Your task to perform on an android device: check out phone information Image 0: 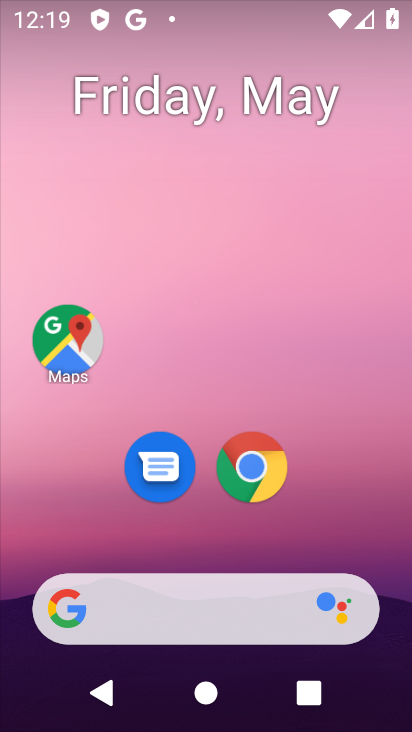
Step 0: drag from (345, 506) to (269, 61)
Your task to perform on an android device: check out phone information Image 1: 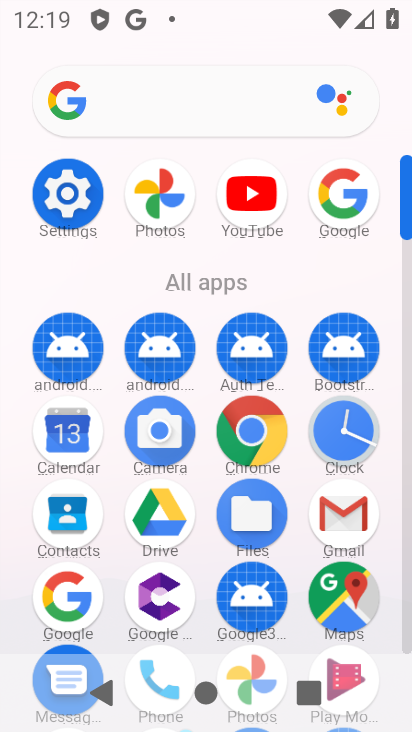
Step 1: click (65, 191)
Your task to perform on an android device: check out phone information Image 2: 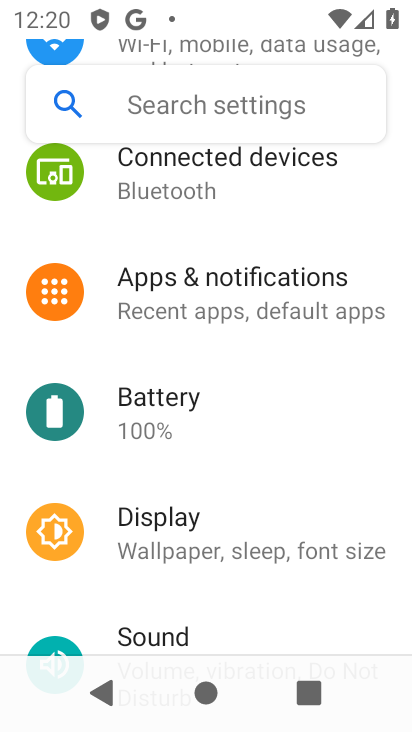
Step 2: drag from (243, 494) to (248, 372)
Your task to perform on an android device: check out phone information Image 3: 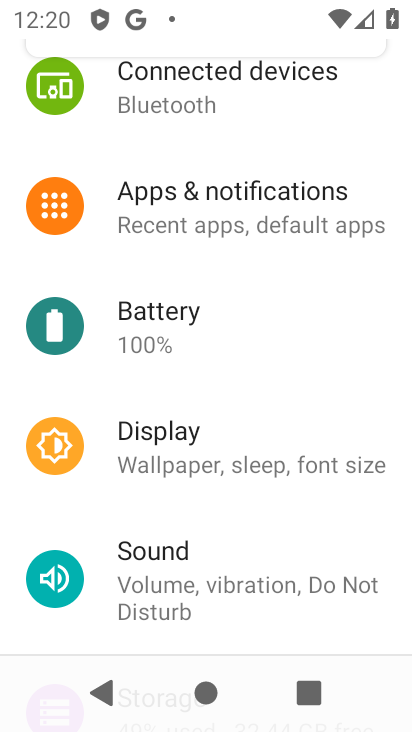
Step 3: drag from (224, 505) to (230, 415)
Your task to perform on an android device: check out phone information Image 4: 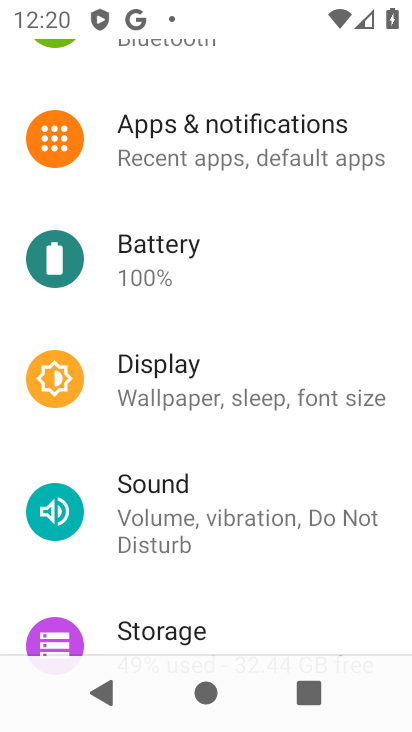
Step 4: drag from (235, 460) to (283, 330)
Your task to perform on an android device: check out phone information Image 5: 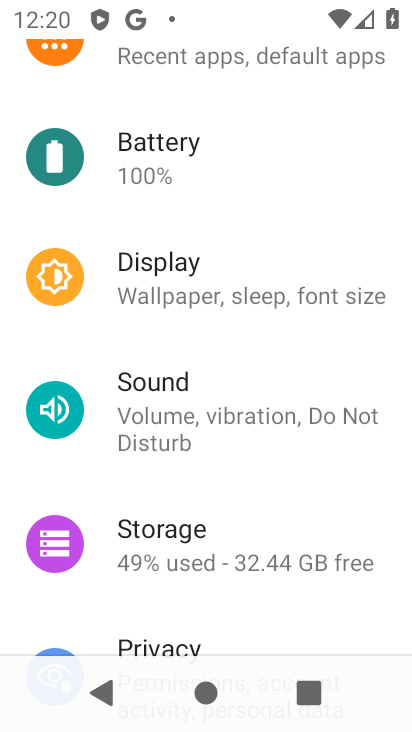
Step 5: drag from (200, 483) to (225, 383)
Your task to perform on an android device: check out phone information Image 6: 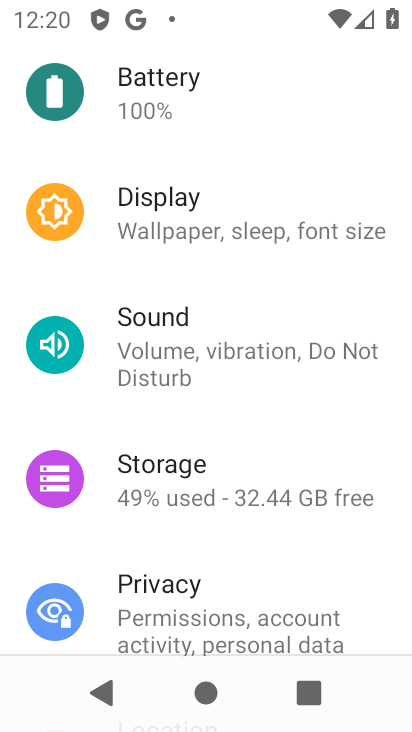
Step 6: drag from (187, 443) to (230, 338)
Your task to perform on an android device: check out phone information Image 7: 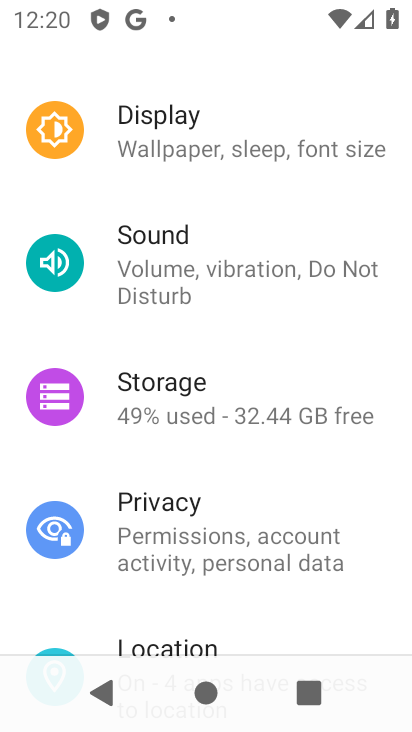
Step 7: drag from (170, 598) to (229, 489)
Your task to perform on an android device: check out phone information Image 8: 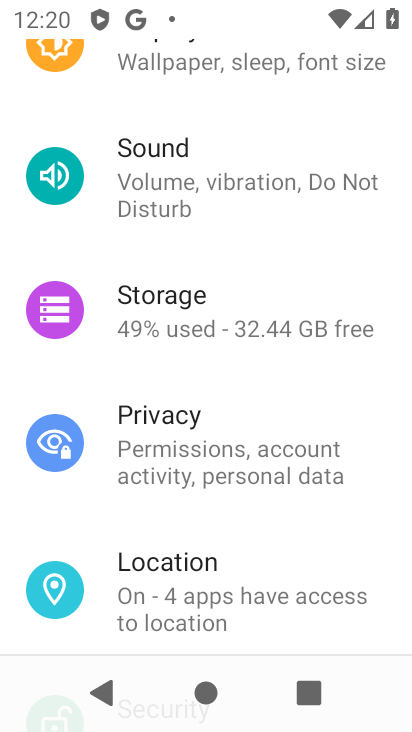
Step 8: drag from (176, 539) to (218, 384)
Your task to perform on an android device: check out phone information Image 9: 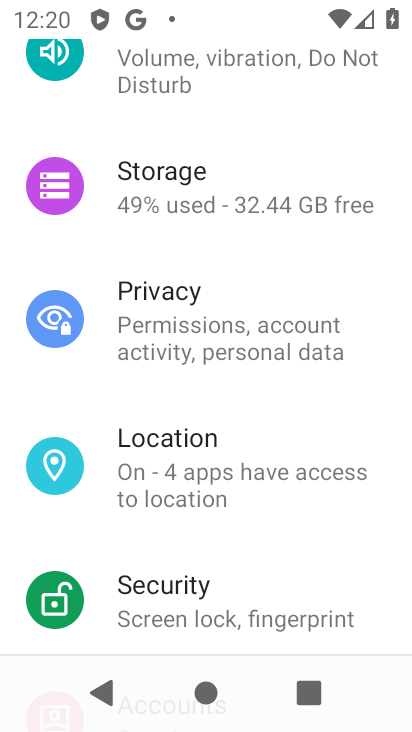
Step 9: drag from (162, 527) to (215, 384)
Your task to perform on an android device: check out phone information Image 10: 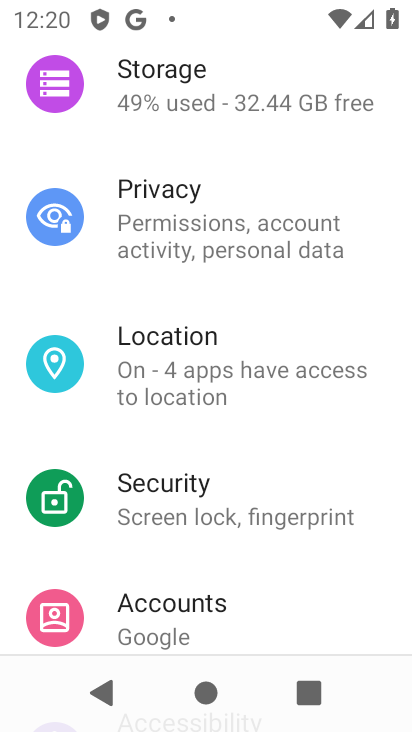
Step 10: drag from (135, 575) to (207, 435)
Your task to perform on an android device: check out phone information Image 11: 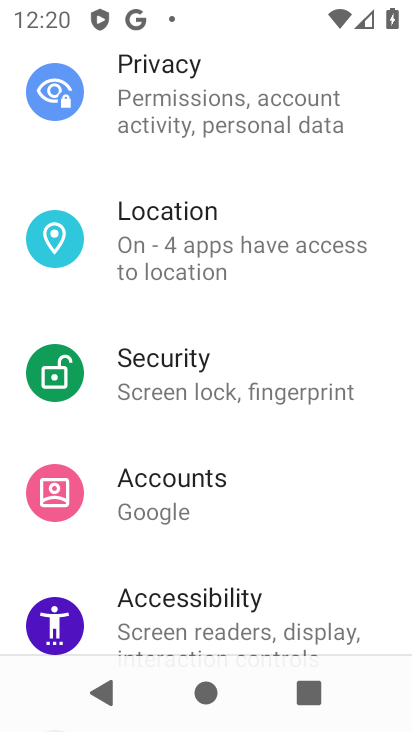
Step 11: drag from (132, 571) to (200, 423)
Your task to perform on an android device: check out phone information Image 12: 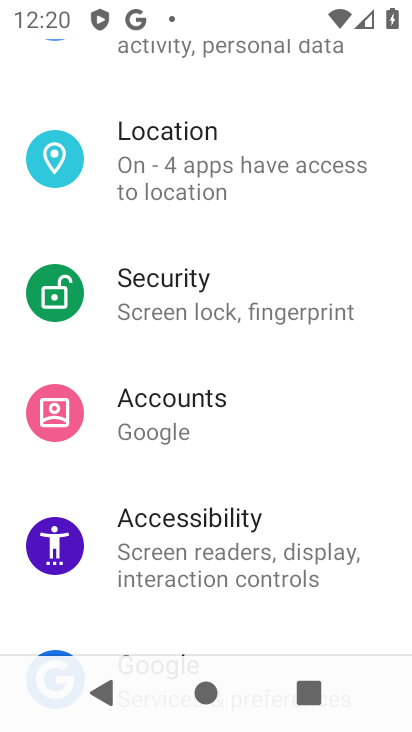
Step 12: drag from (120, 466) to (149, 332)
Your task to perform on an android device: check out phone information Image 13: 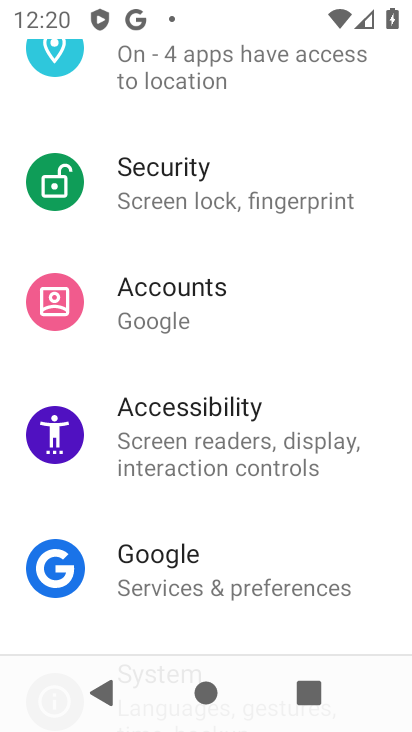
Step 13: drag from (118, 521) to (206, 358)
Your task to perform on an android device: check out phone information Image 14: 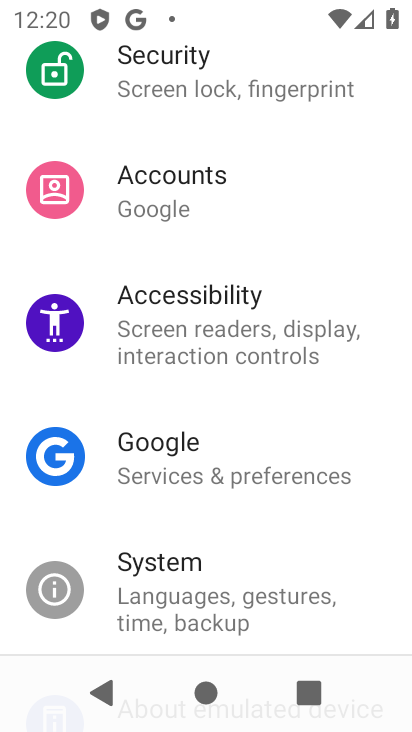
Step 14: drag from (129, 524) to (120, 393)
Your task to perform on an android device: check out phone information Image 15: 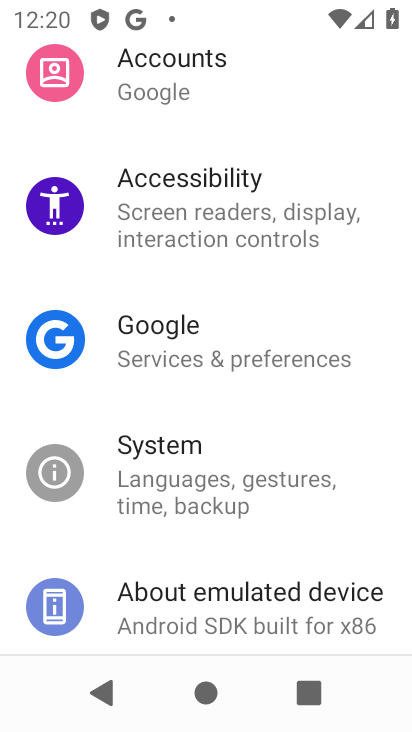
Step 15: drag from (127, 548) to (135, 399)
Your task to perform on an android device: check out phone information Image 16: 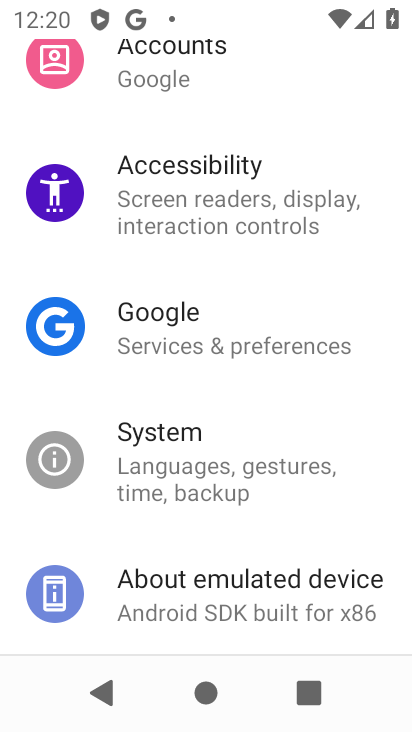
Step 16: click (173, 576)
Your task to perform on an android device: check out phone information Image 17: 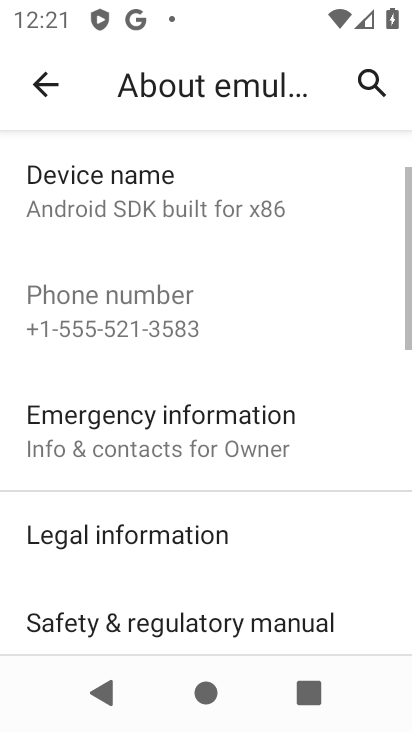
Step 17: task complete